Your task to perform on an android device: Search for vegetarian restaurants on Maps Image 0: 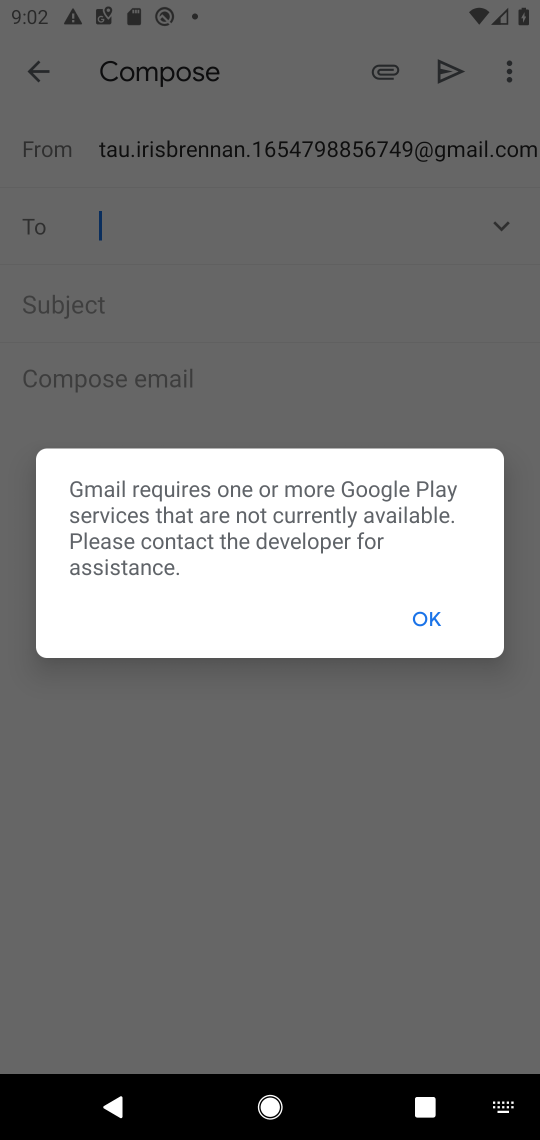
Step 0: press home button
Your task to perform on an android device: Search for vegetarian restaurants on Maps Image 1: 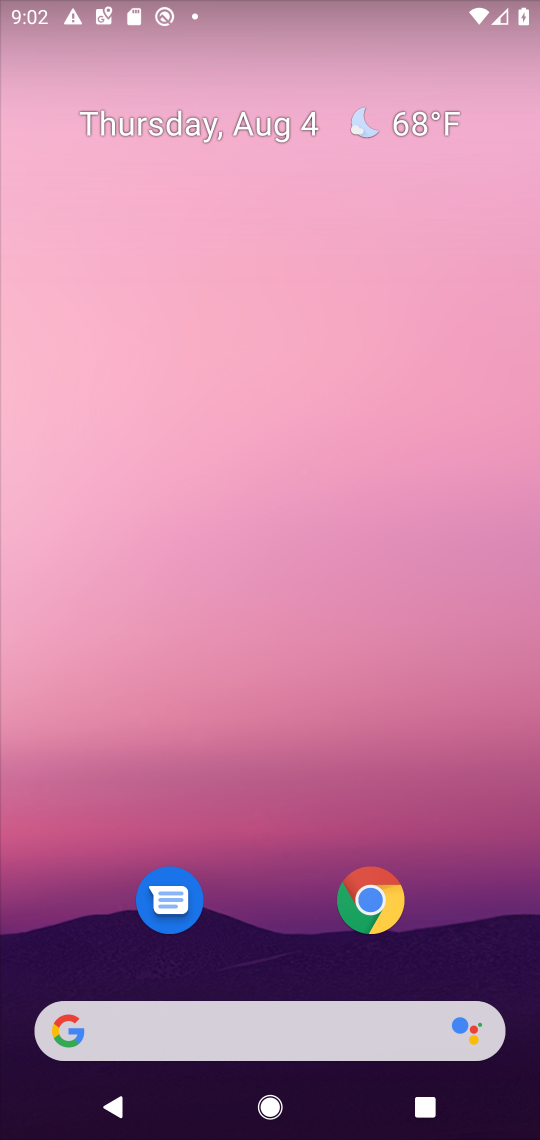
Step 1: drag from (285, 931) to (238, 237)
Your task to perform on an android device: Search for vegetarian restaurants on Maps Image 2: 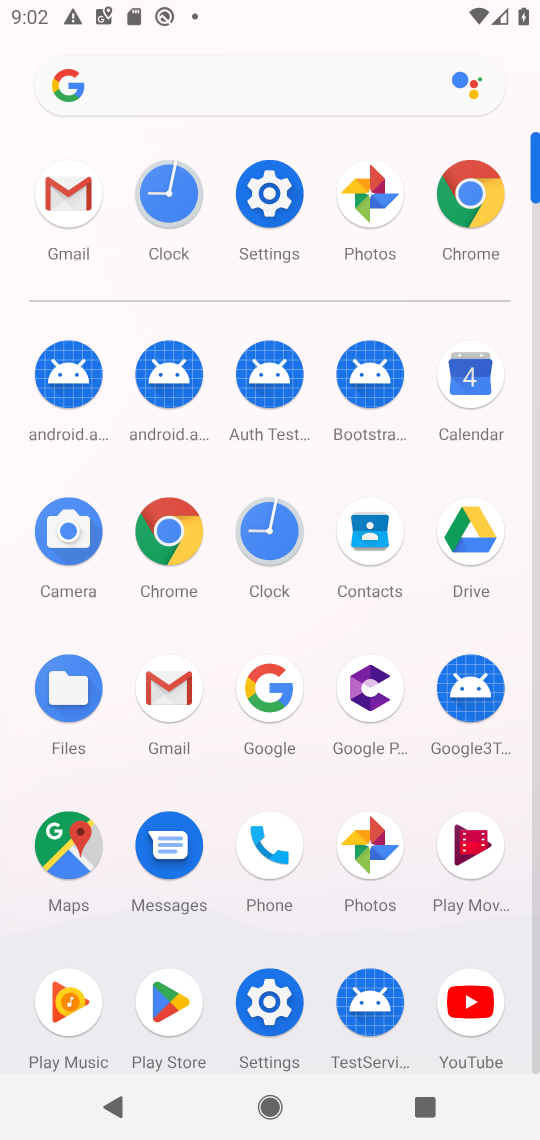
Step 2: click (59, 860)
Your task to perform on an android device: Search for vegetarian restaurants on Maps Image 3: 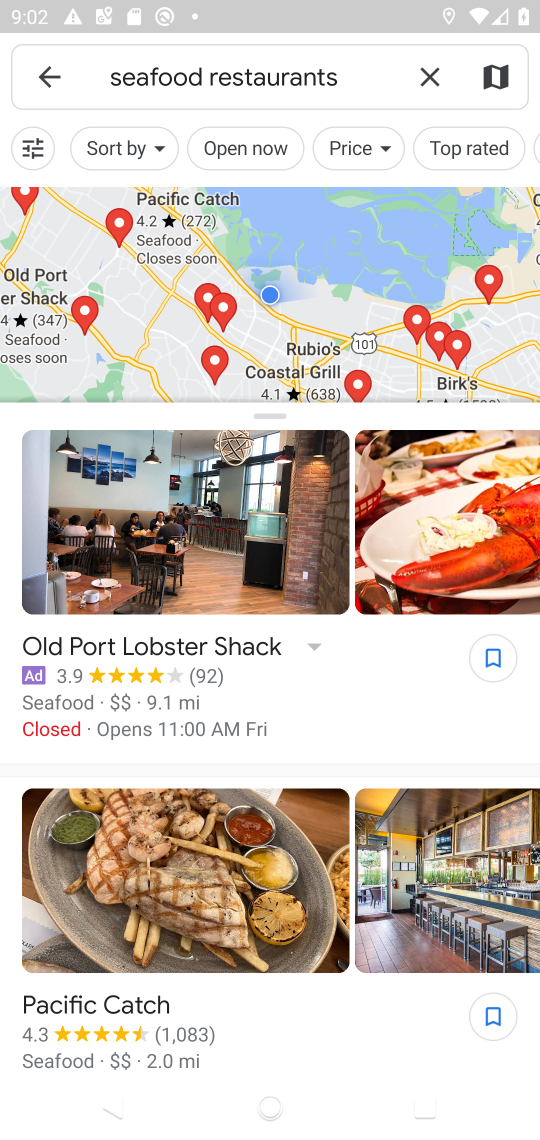
Step 3: click (435, 70)
Your task to perform on an android device: Search for vegetarian restaurants on Maps Image 4: 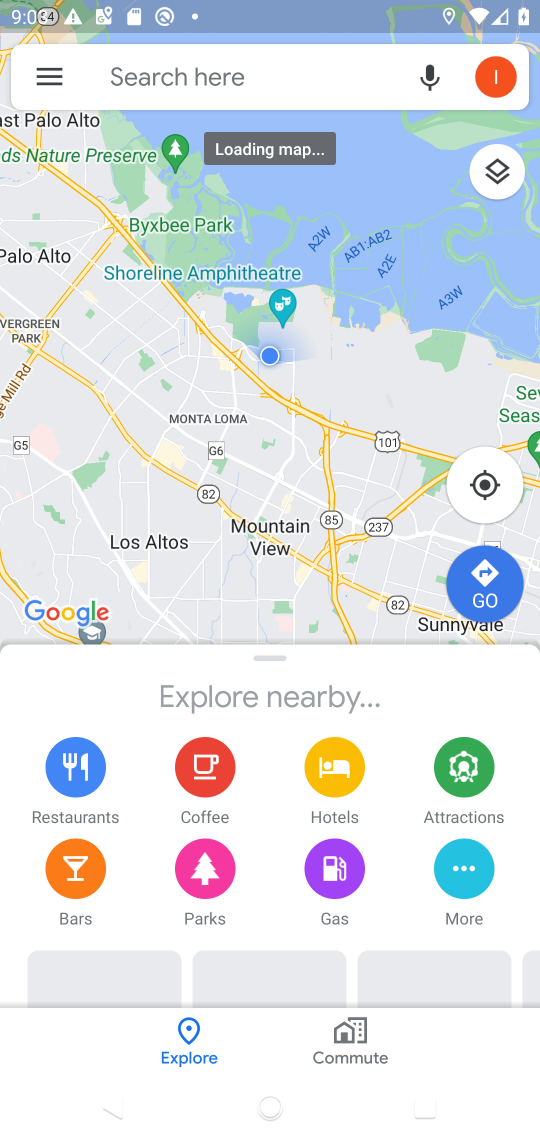
Step 4: click (246, 60)
Your task to perform on an android device: Search for vegetarian restaurants on Maps Image 5: 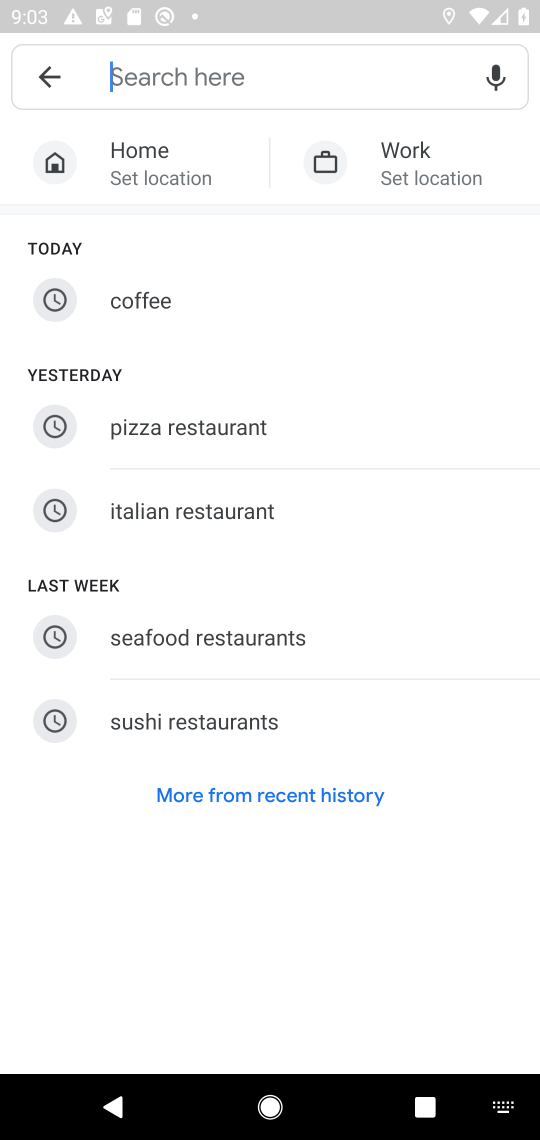
Step 5: type "vegetarian restaurants"
Your task to perform on an android device: Search for vegetarian restaurants on Maps Image 6: 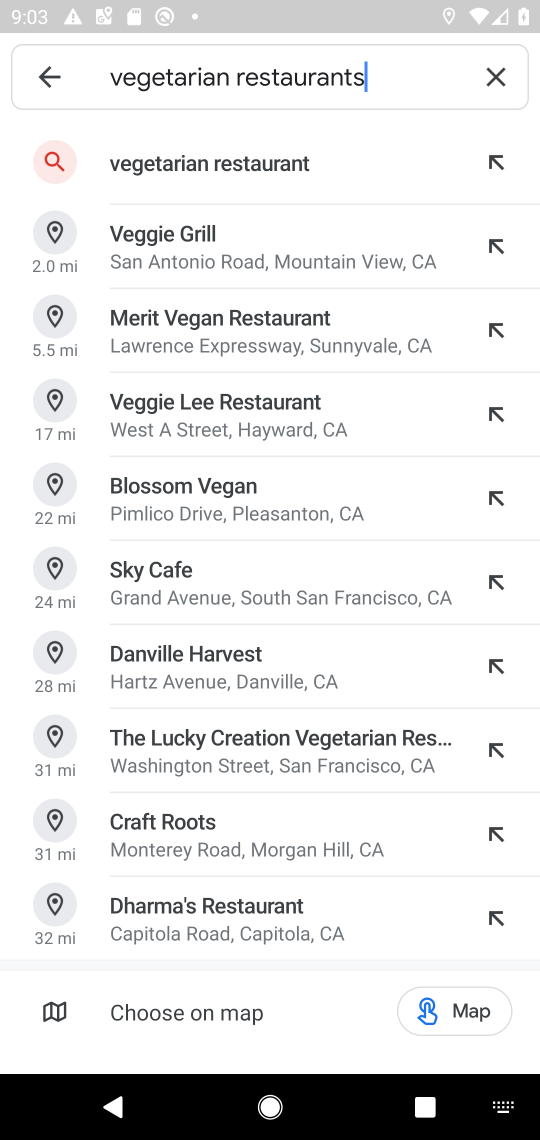
Step 6: click (262, 166)
Your task to perform on an android device: Search for vegetarian restaurants on Maps Image 7: 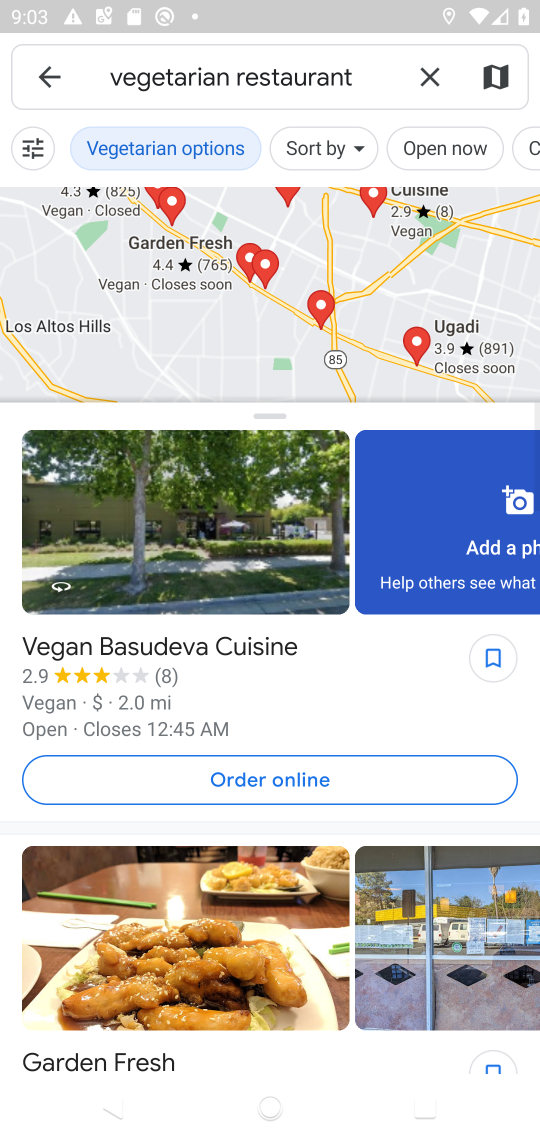
Step 7: task complete